Your task to perform on an android device: Toggle the flashlight Image 0: 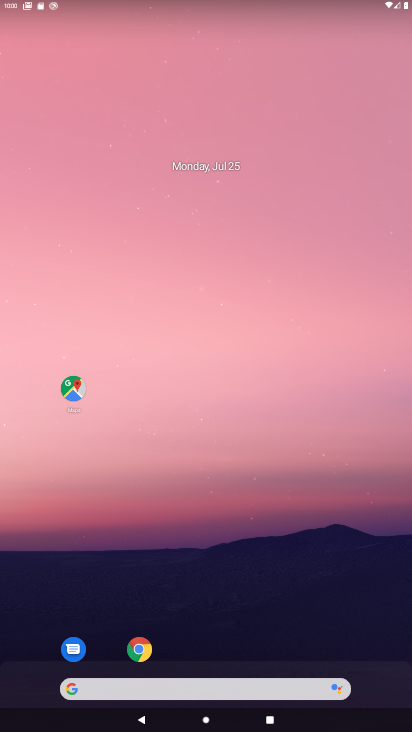
Step 0: drag from (217, 15) to (222, 442)
Your task to perform on an android device: Toggle the flashlight Image 1: 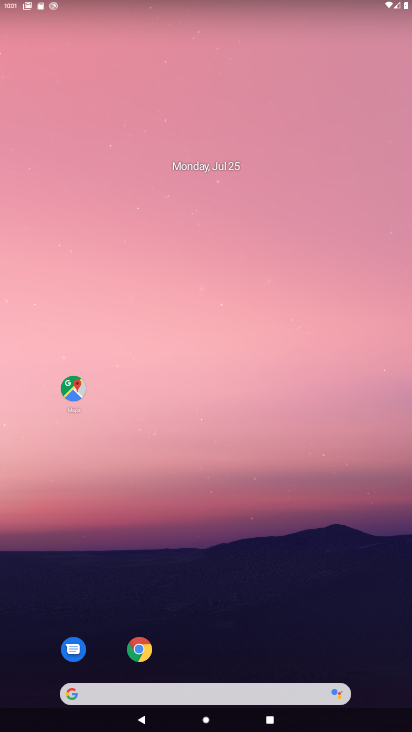
Step 1: drag from (209, 11) to (195, 417)
Your task to perform on an android device: Toggle the flashlight Image 2: 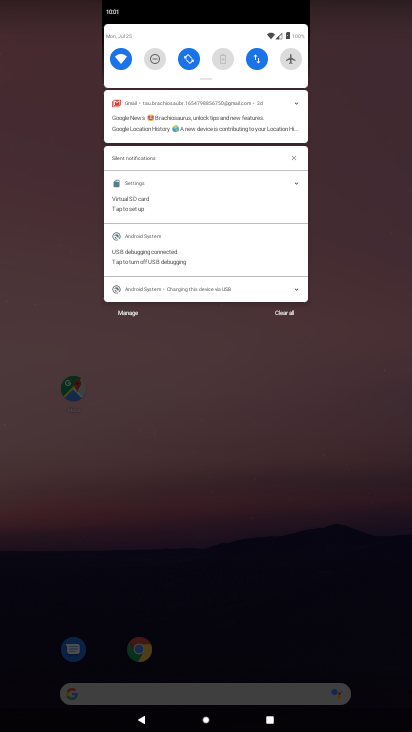
Step 2: drag from (203, 77) to (190, 459)
Your task to perform on an android device: Toggle the flashlight Image 3: 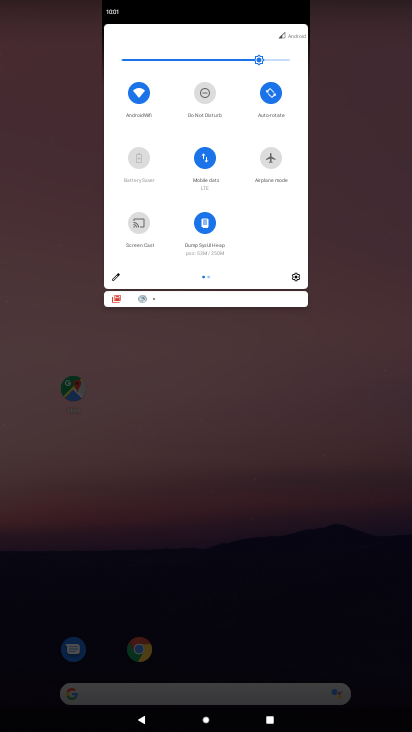
Step 3: click (117, 277)
Your task to perform on an android device: Toggle the flashlight Image 4: 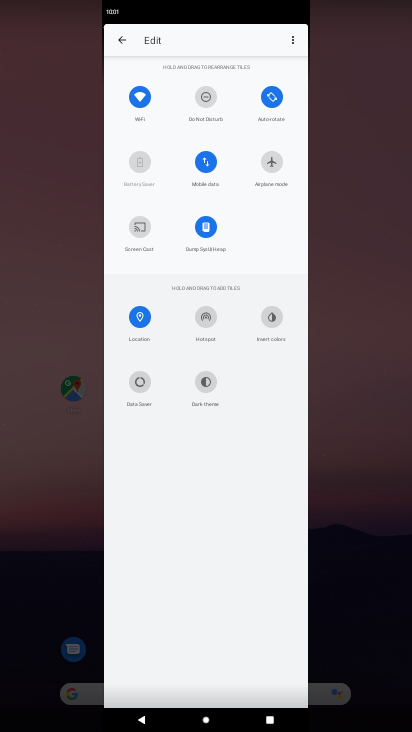
Step 4: task complete